Your task to perform on an android device: Open calendar and show me the fourth week of next month Image 0: 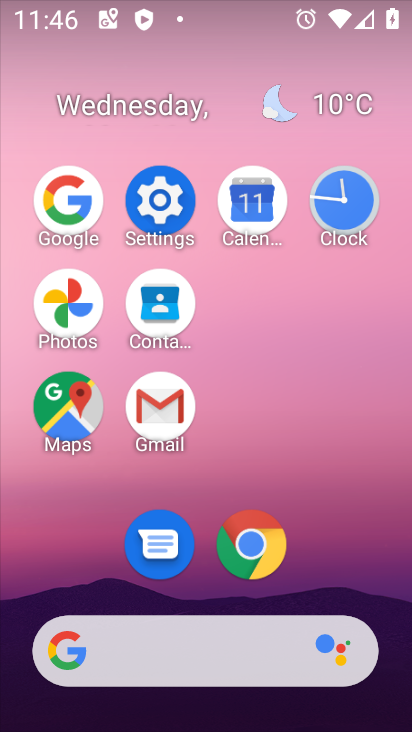
Step 0: click (248, 200)
Your task to perform on an android device: Open calendar and show me the fourth week of next month Image 1: 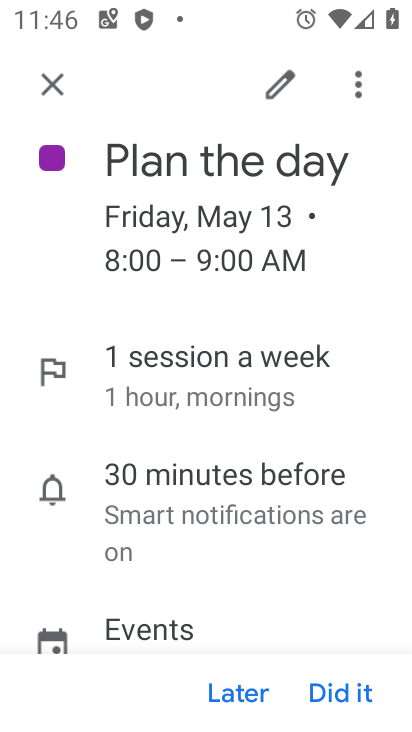
Step 1: click (64, 88)
Your task to perform on an android device: Open calendar and show me the fourth week of next month Image 2: 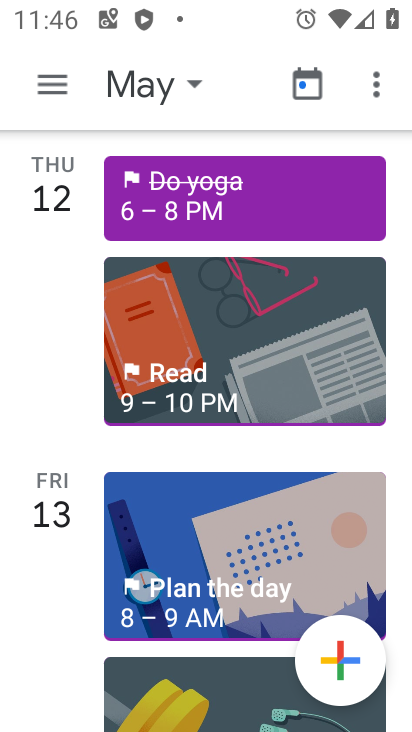
Step 2: click (49, 82)
Your task to perform on an android device: Open calendar and show me the fourth week of next month Image 3: 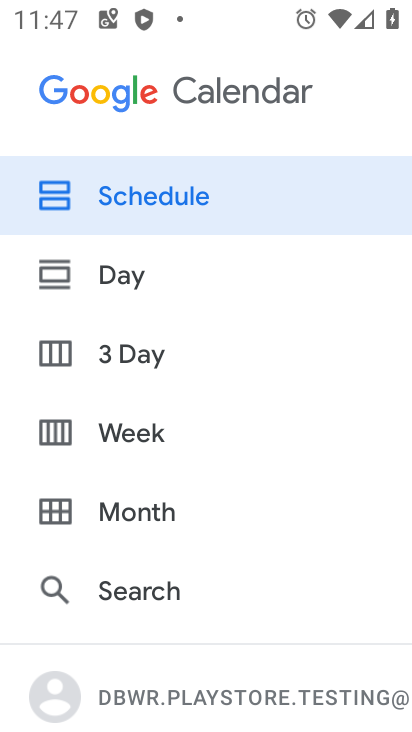
Step 3: click (150, 412)
Your task to perform on an android device: Open calendar and show me the fourth week of next month Image 4: 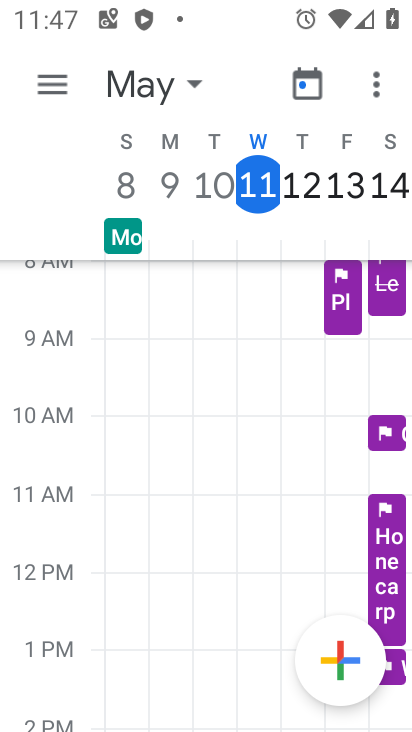
Step 4: click (156, 91)
Your task to perform on an android device: Open calendar and show me the fourth week of next month Image 5: 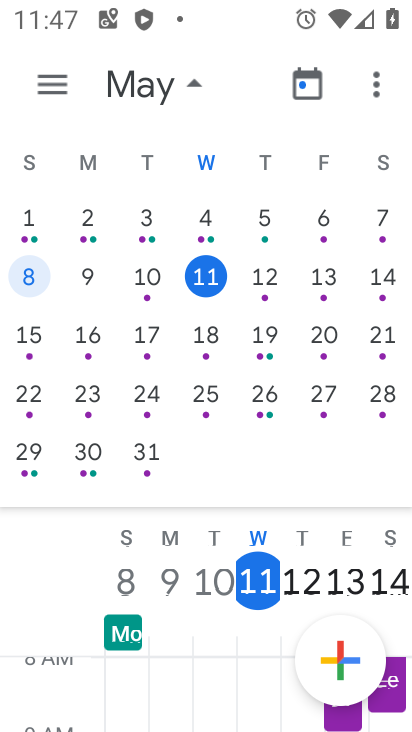
Step 5: drag from (392, 311) to (43, 349)
Your task to perform on an android device: Open calendar and show me the fourth week of next month Image 6: 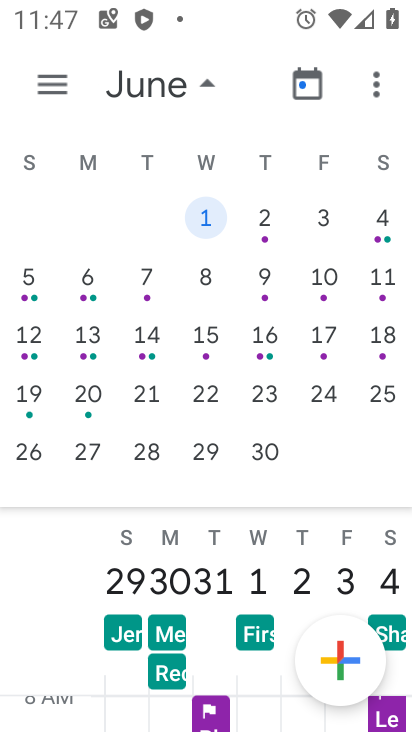
Step 6: click (61, 84)
Your task to perform on an android device: Open calendar and show me the fourth week of next month Image 7: 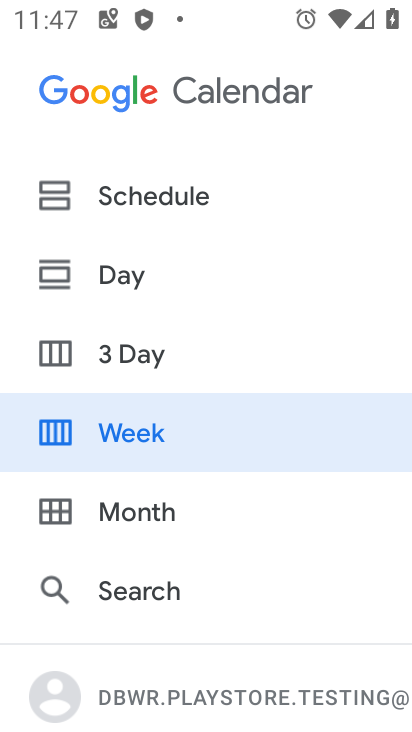
Step 7: click (140, 412)
Your task to perform on an android device: Open calendar and show me the fourth week of next month Image 8: 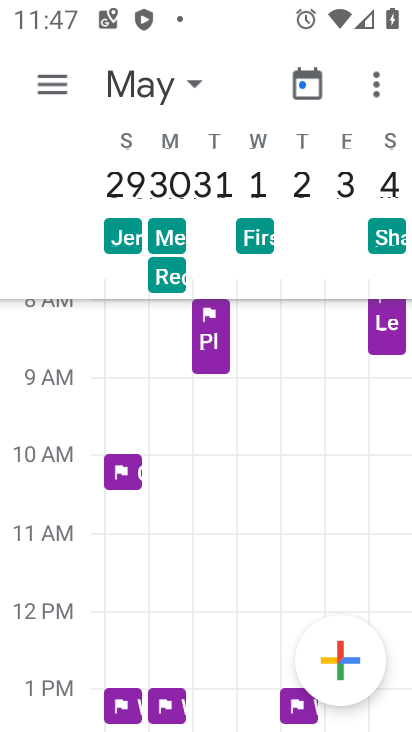
Step 8: task complete